Your task to perform on an android device: open chrome and create a bookmark for the current page Image 0: 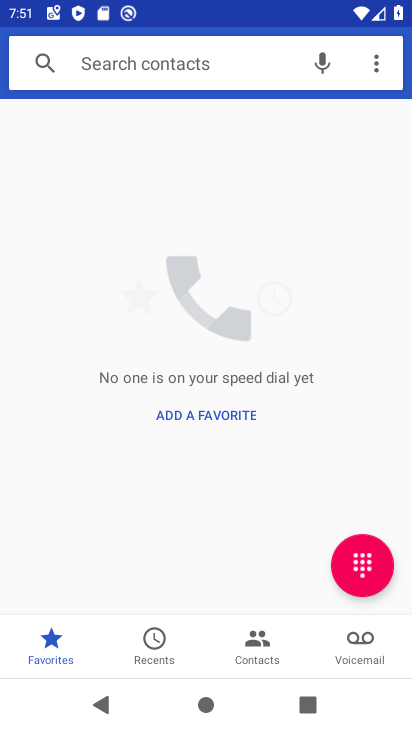
Step 0: press home button
Your task to perform on an android device: open chrome and create a bookmark for the current page Image 1: 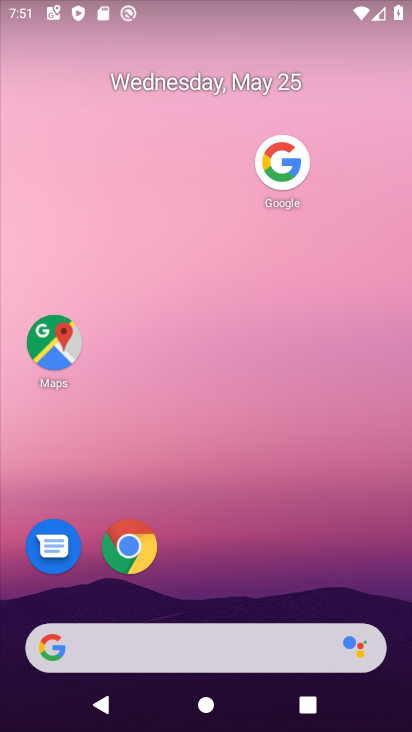
Step 1: click (137, 557)
Your task to perform on an android device: open chrome and create a bookmark for the current page Image 2: 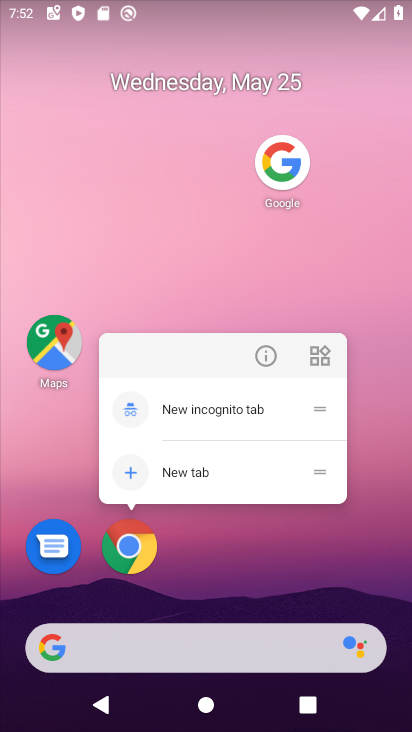
Step 2: click (128, 547)
Your task to perform on an android device: open chrome and create a bookmark for the current page Image 3: 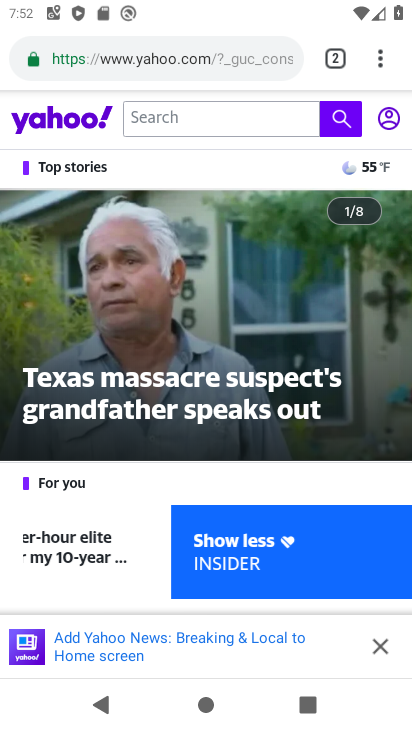
Step 3: click (376, 77)
Your task to perform on an android device: open chrome and create a bookmark for the current page Image 4: 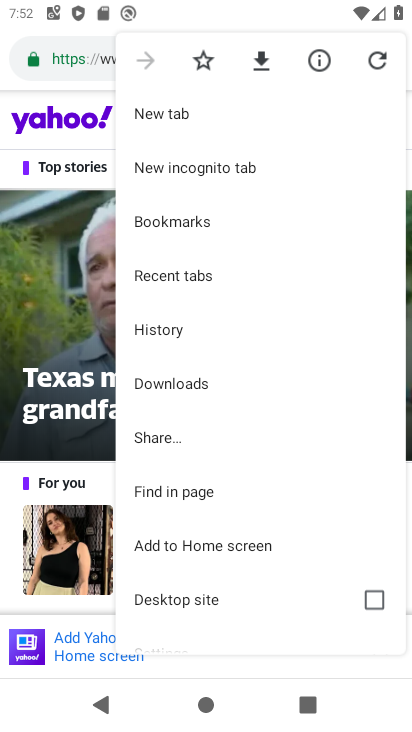
Step 4: click (205, 58)
Your task to perform on an android device: open chrome and create a bookmark for the current page Image 5: 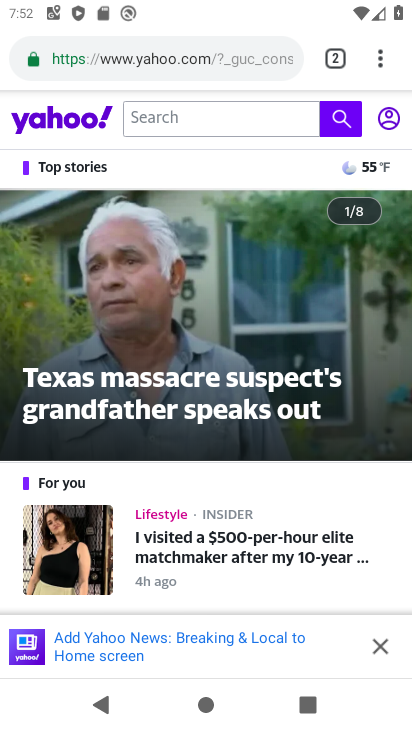
Step 5: task complete